Your task to perform on an android device: toggle priority inbox in the gmail app Image 0: 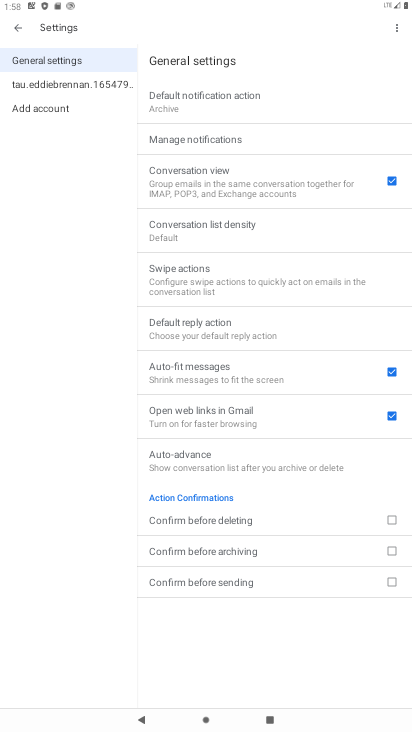
Step 0: press home button
Your task to perform on an android device: toggle priority inbox in the gmail app Image 1: 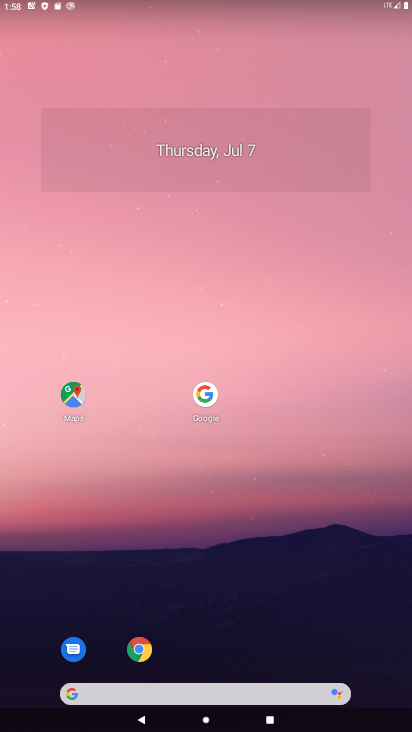
Step 1: drag from (299, 482) to (260, 44)
Your task to perform on an android device: toggle priority inbox in the gmail app Image 2: 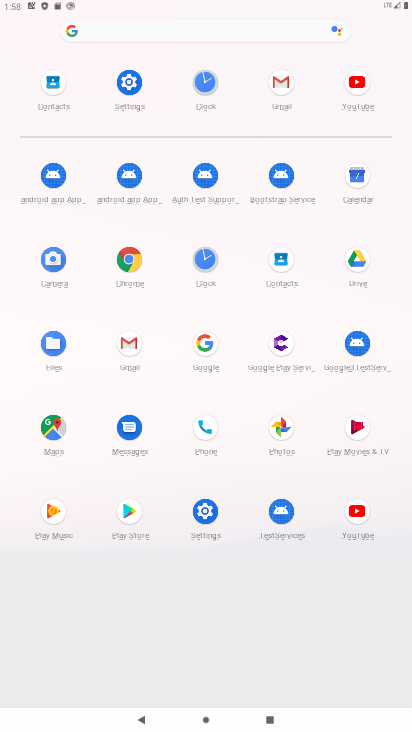
Step 2: click (283, 89)
Your task to perform on an android device: toggle priority inbox in the gmail app Image 3: 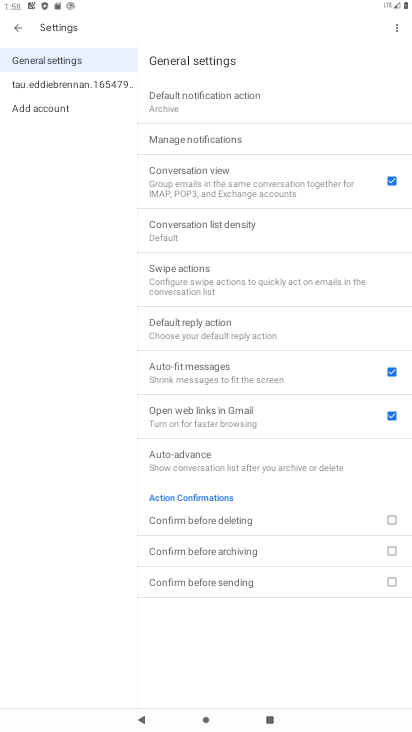
Step 3: click (37, 80)
Your task to perform on an android device: toggle priority inbox in the gmail app Image 4: 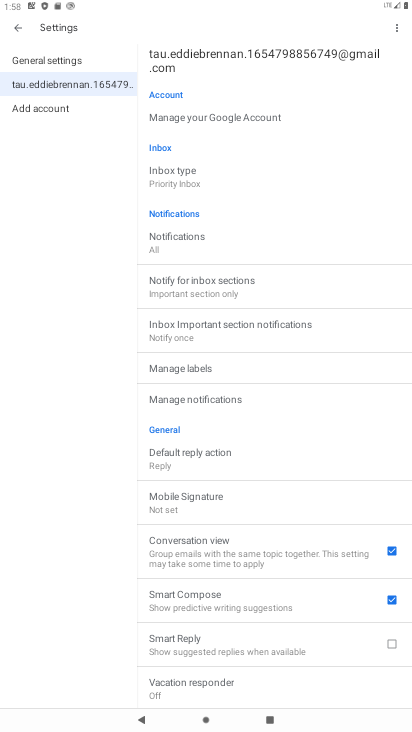
Step 4: click (186, 167)
Your task to perform on an android device: toggle priority inbox in the gmail app Image 5: 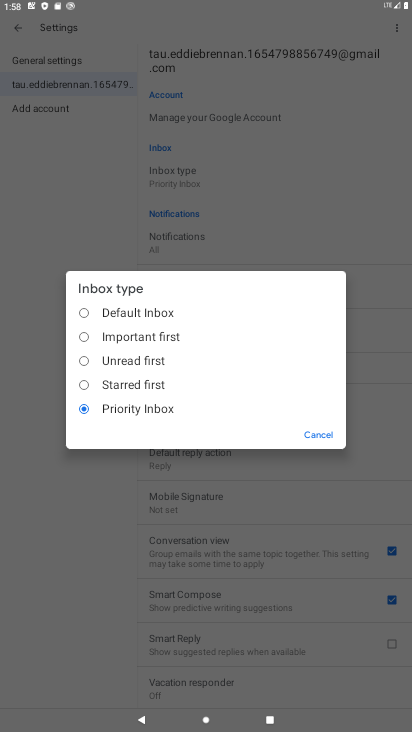
Step 5: click (83, 312)
Your task to perform on an android device: toggle priority inbox in the gmail app Image 6: 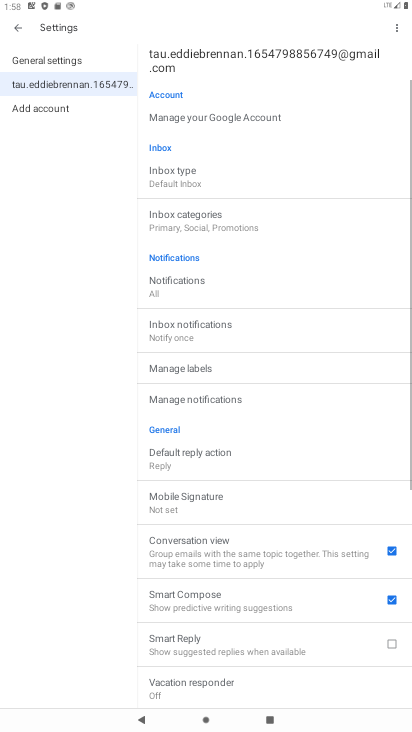
Step 6: task complete